Your task to perform on an android device: open a new tab in the chrome app Image 0: 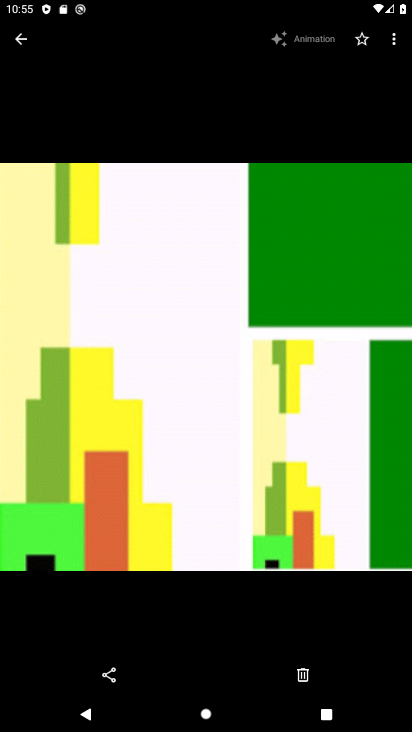
Step 0: press home button
Your task to perform on an android device: open a new tab in the chrome app Image 1: 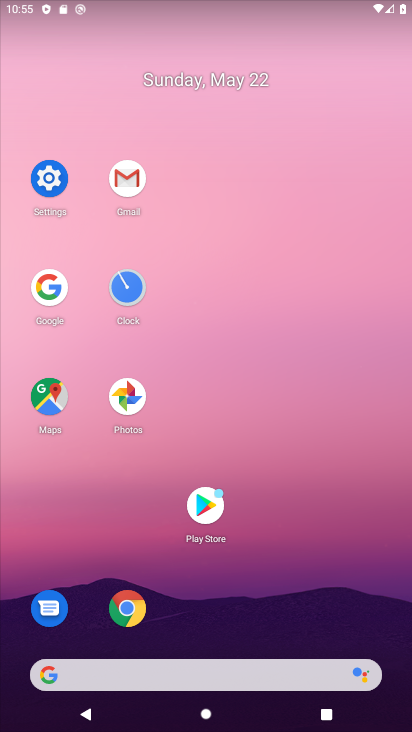
Step 1: click (137, 597)
Your task to perform on an android device: open a new tab in the chrome app Image 2: 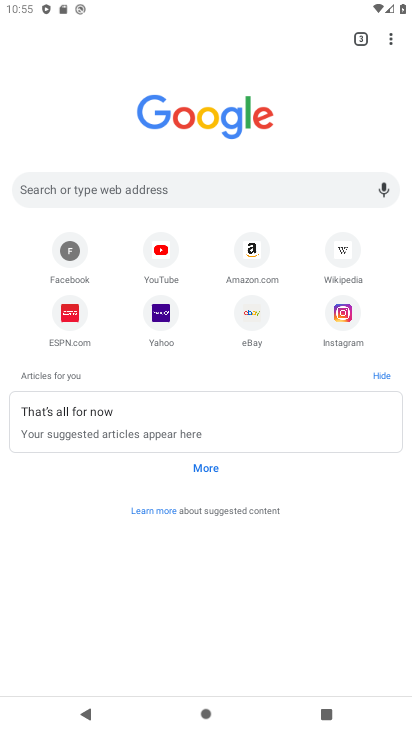
Step 2: click (368, 45)
Your task to perform on an android device: open a new tab in the chrome app Image 3: 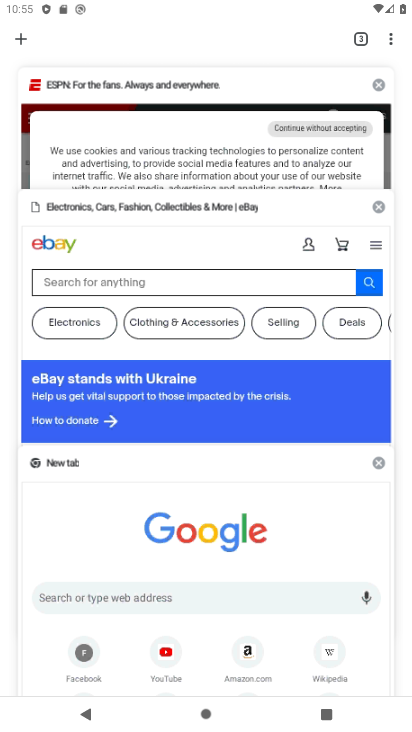
Step 3: click (22, 33)
Your task to perform on an android device: open a new tab in the chrome app Image 4: 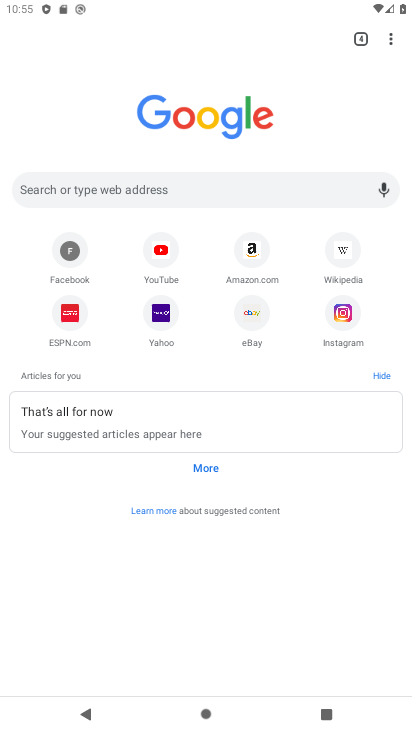
Step 4: task complete